Your task to perform on an android device: turn on data saver in the chrome app Image 0: 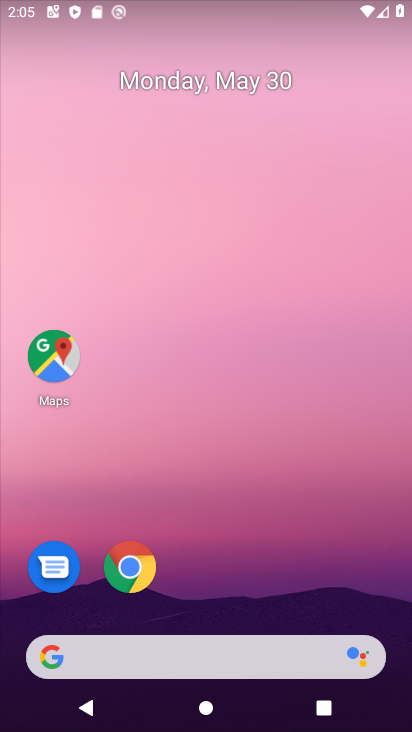
Step 0: click (127, 588)
Your task to perform on an android device: turn on data saver in the chrome app Image 1: 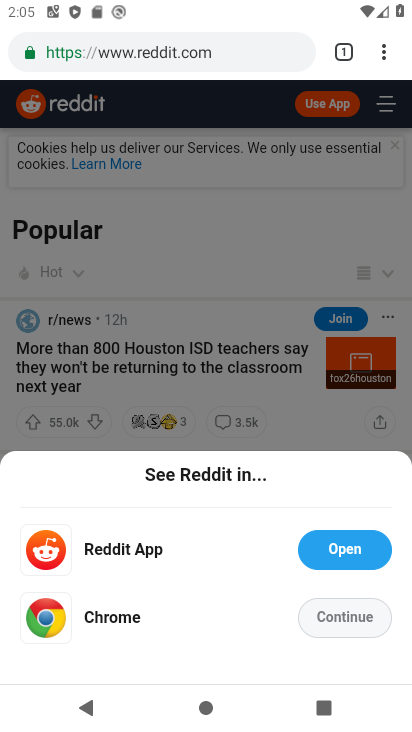
Step 1: click (373, 58)
Your task to perform on an android device: turn on data saver in the chrome app Image 2: 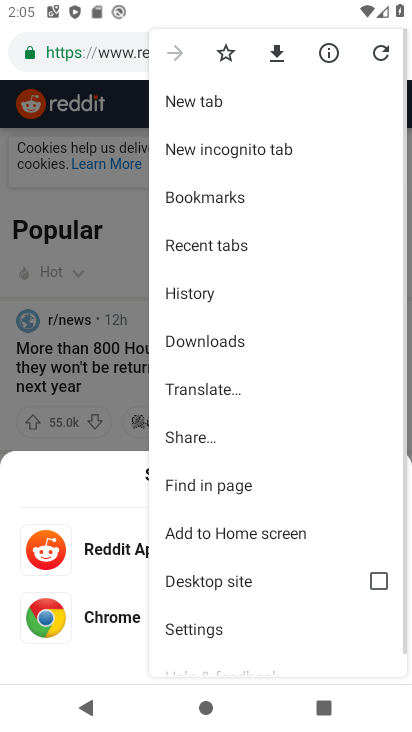
Step 2: click (203, 633)
Your task to perform on an android device: turn on data saver in the chrome app Image 3: 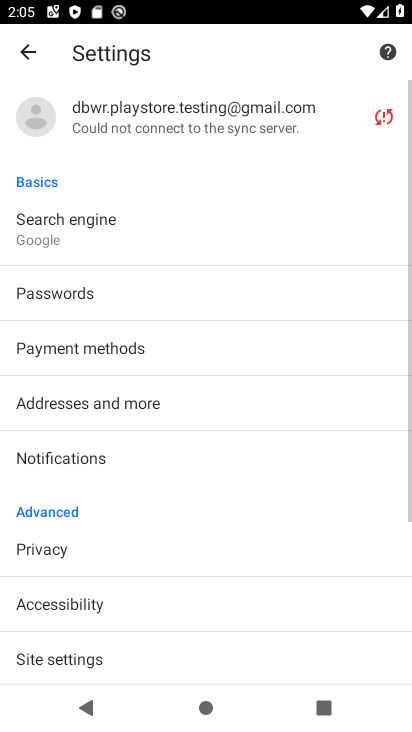
Step 3: drag from (109, 591) to (134, 373)
Your task to perform on an android device: turn on data saver in the chrome app Image 4: 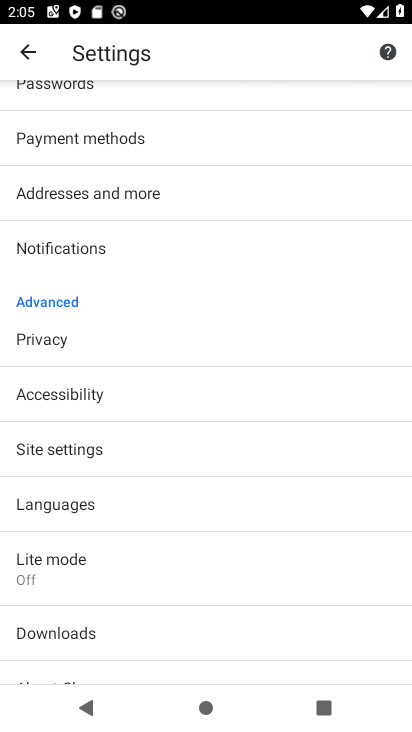
Step 4: click (78, 589)
Your task to perform on an android device: turn on data saver in the chrome app Image 5: 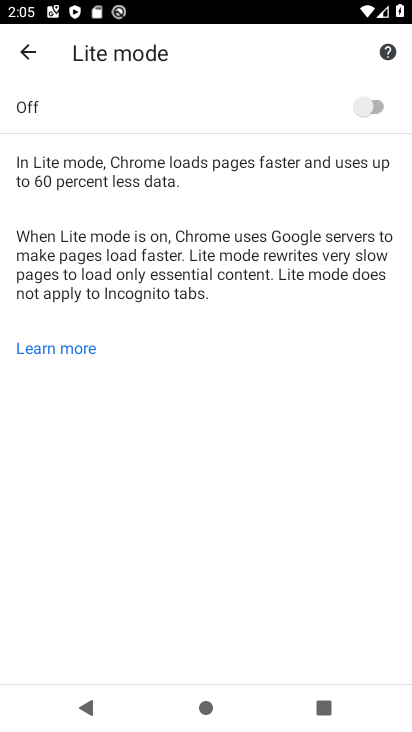
Step 5: click (373, 111)
Your task to perform on an android device: turn on data saver in the chrome app Image 6: 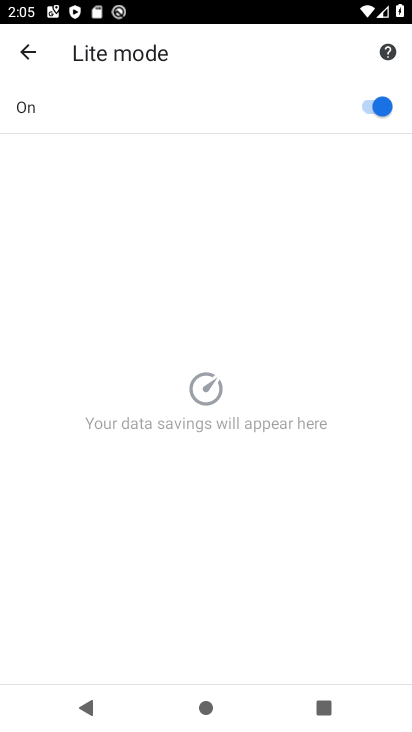
Step 6: task complete